Your task to perform on an android device: Search for a cheap bike on Walmart Image 0: 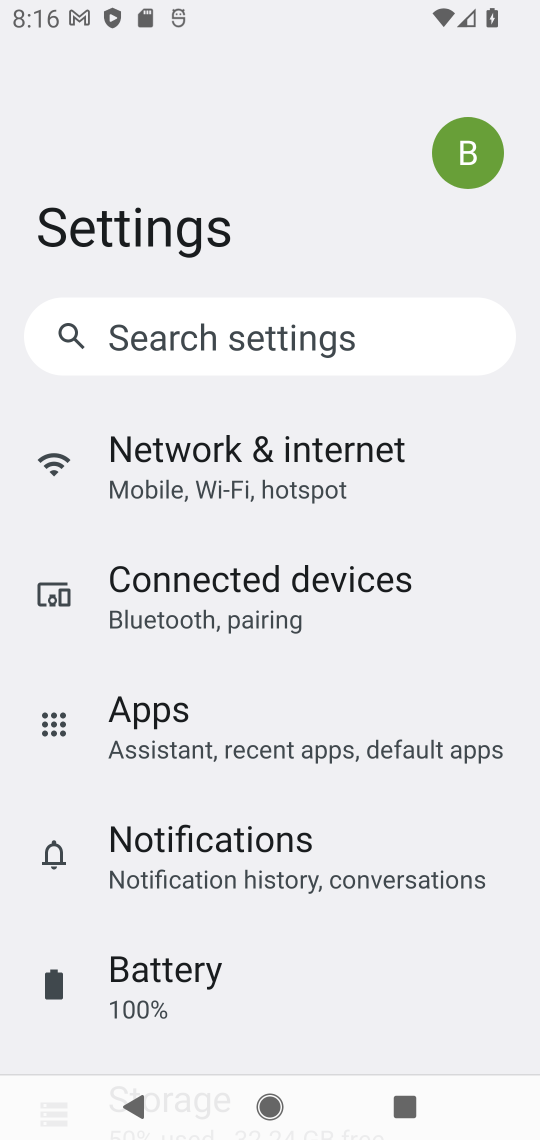
Step 0: press home button
Your task to perform on an android device: Search for a cheap bike on Walmart Image 1: 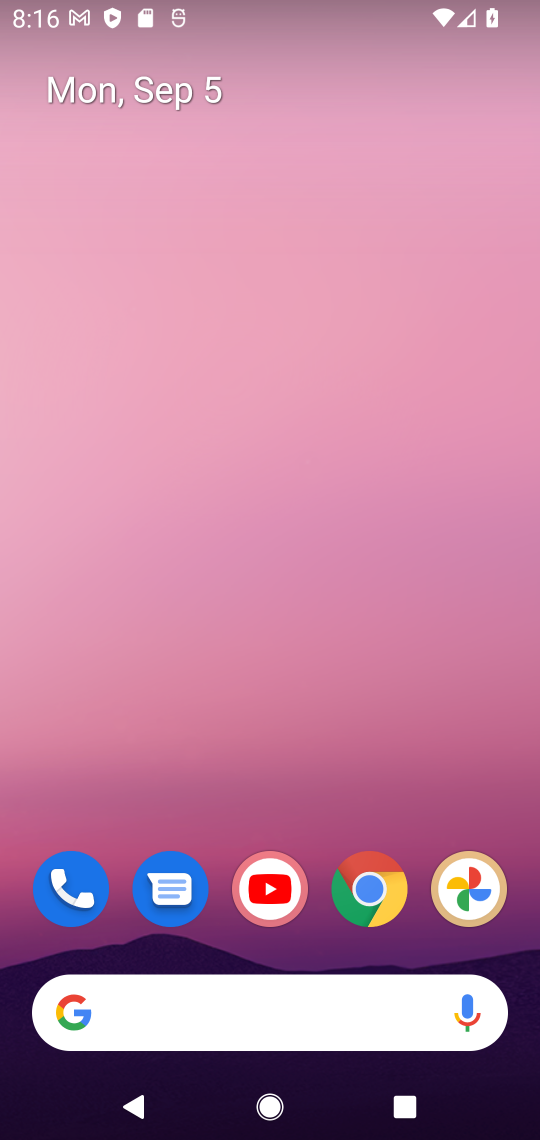
Step 1: click (214, 1022)
Your task to perform on an android device: Search for a cheap bike on Walmart Image 2: 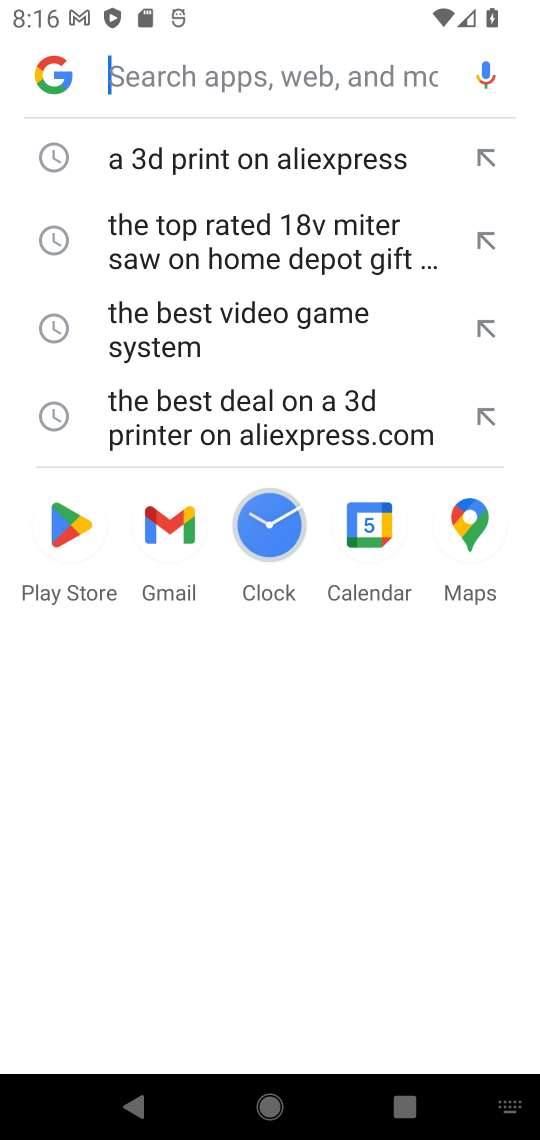
Step 2: type "a cheap bike on Walmart"
Your task to perform on an android device: Search for a cheap bike on Walmart Image 3: 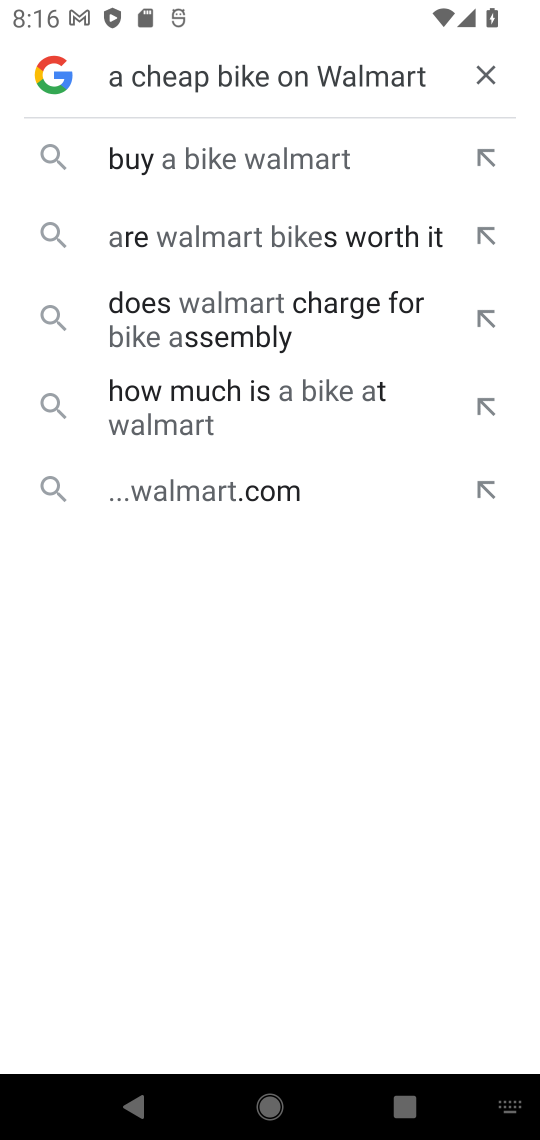
Step 3: click (230, 168)
Your task to perform on an android device: Search for a cheap bike on Walmart Image 4: 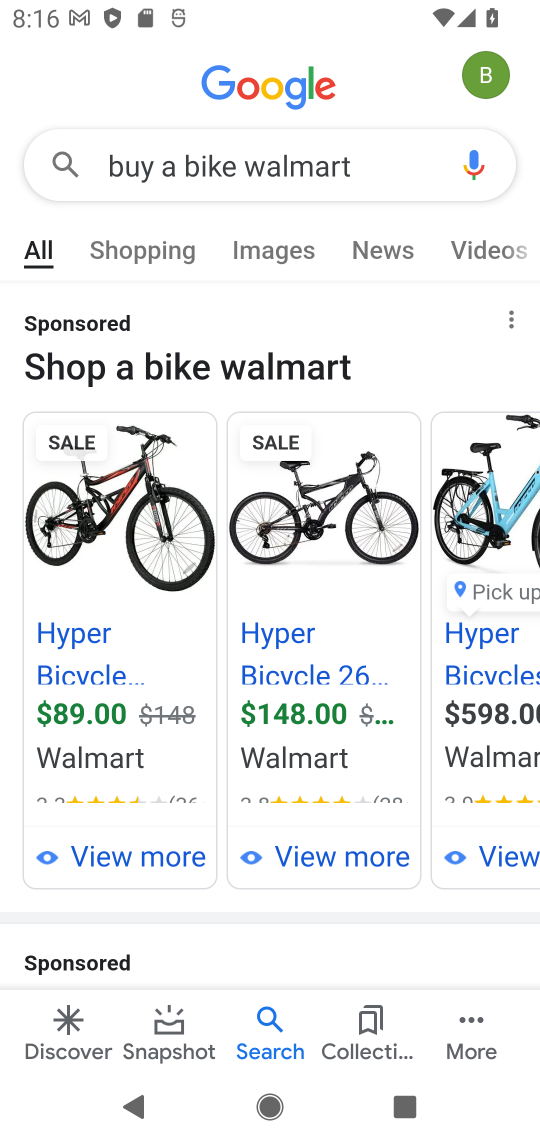
Step 4: task complete